Your task to perform on an android device: Clear all items from cart on target. Search for macbook pro 13 inch on target, select the first entry, add it to the cart, then select checkout. Image 0: 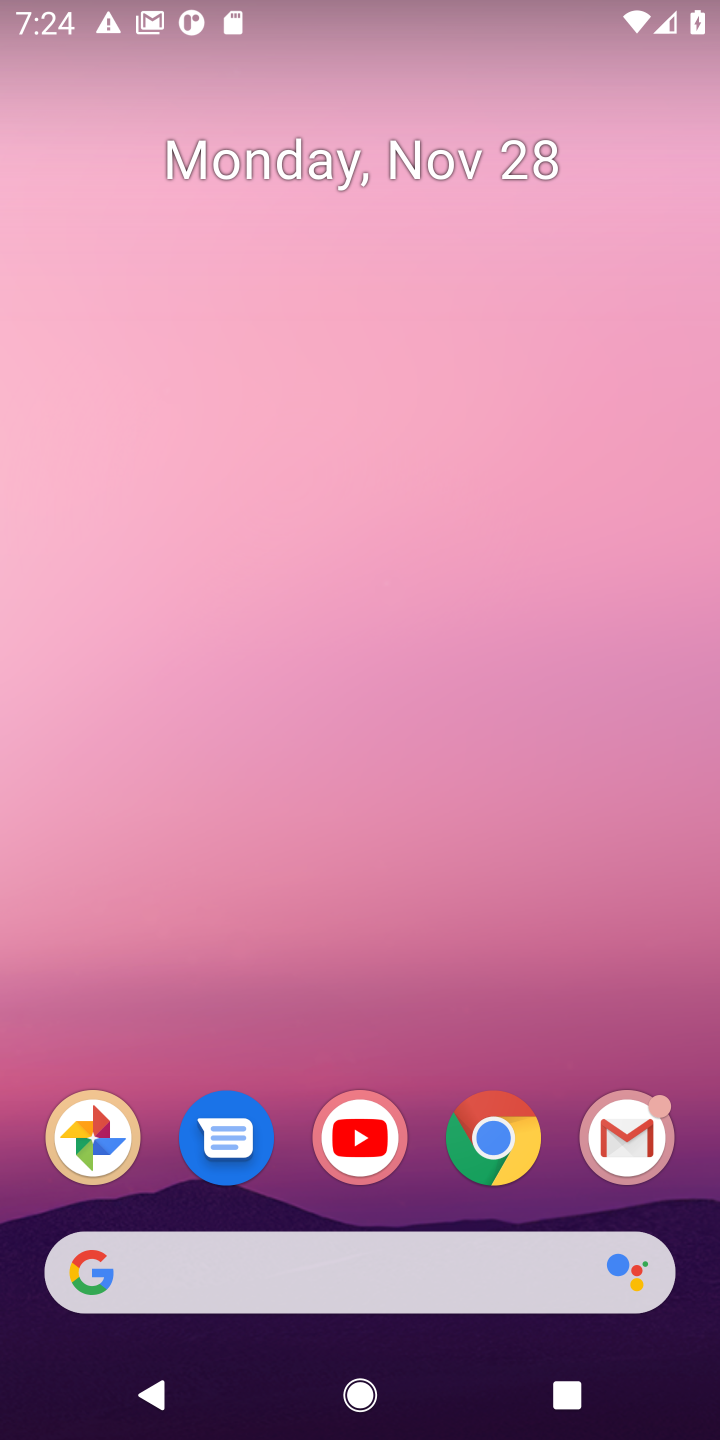
Step 0: click (489, 1138)
Your task to perform on an android device: Clear all items from cart on target. Search for macbook pro 13 inch on target, select the first entry, add it to the cart, then select checkout. Image 1: 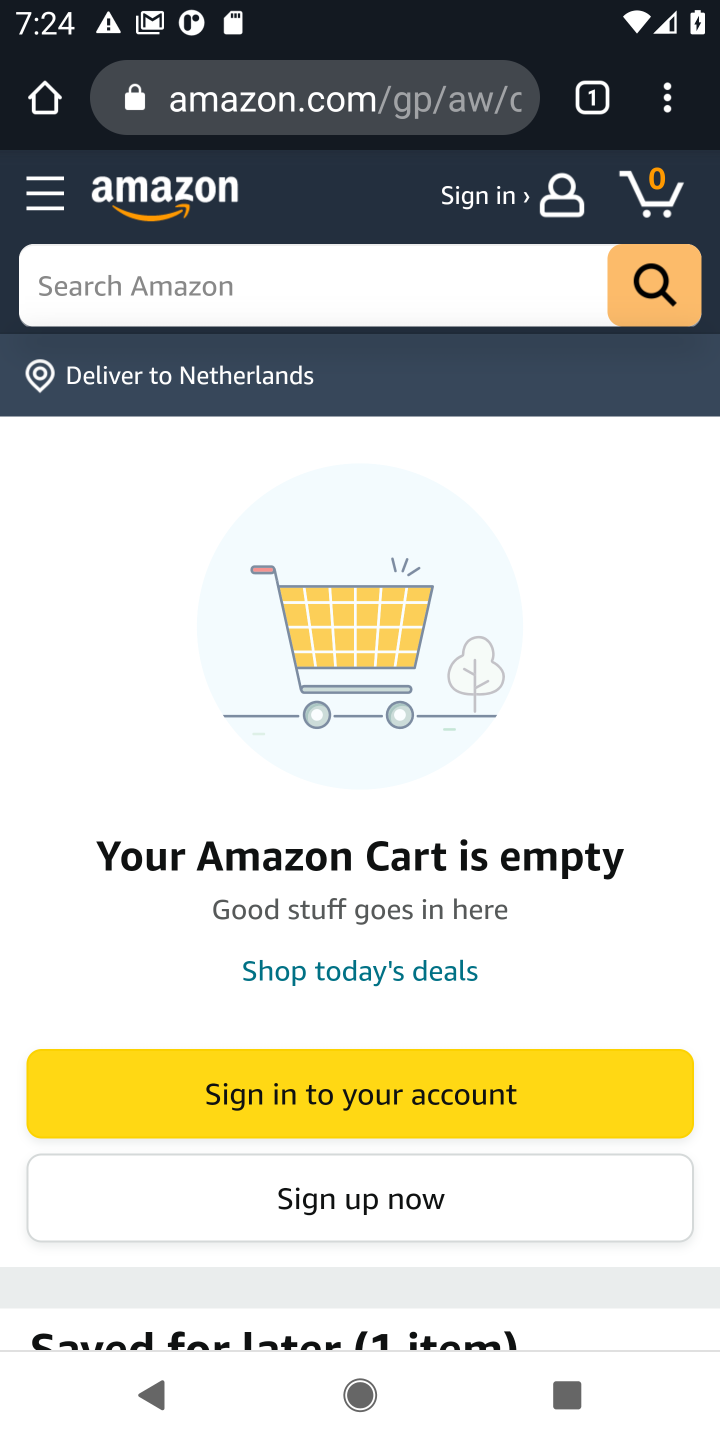
Step 1: click (323, 107)
Your task to perform on an android device: Clear all items from cart on target. Search for macbook pro 13 inch on target, select the first entry, add it to the cart, then select checkout. Image 2: 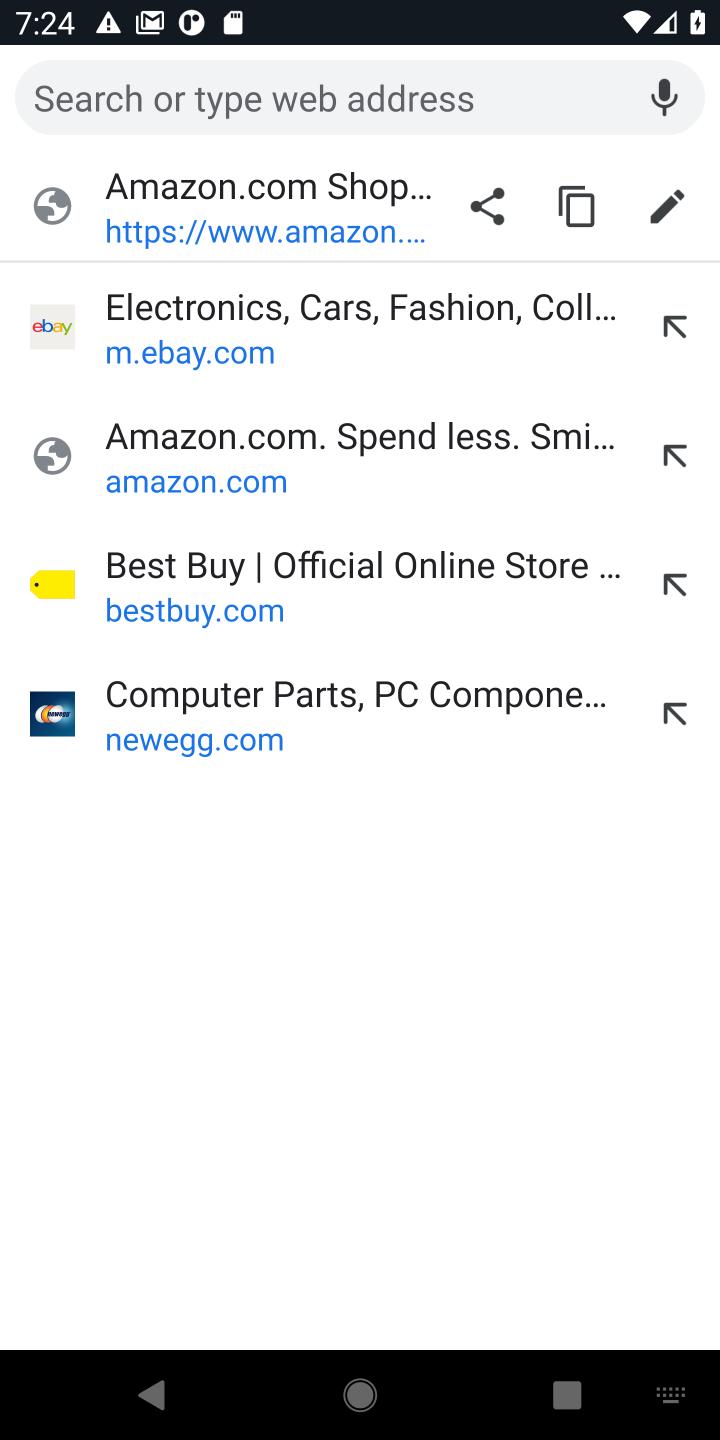
Step 2: type "target.com"
Your task to perform on an android device: Clear all items from cart on target. Search for macbook pro 13 inch on target, select the first entry, add it to the cart, then select checkout. Image 3: 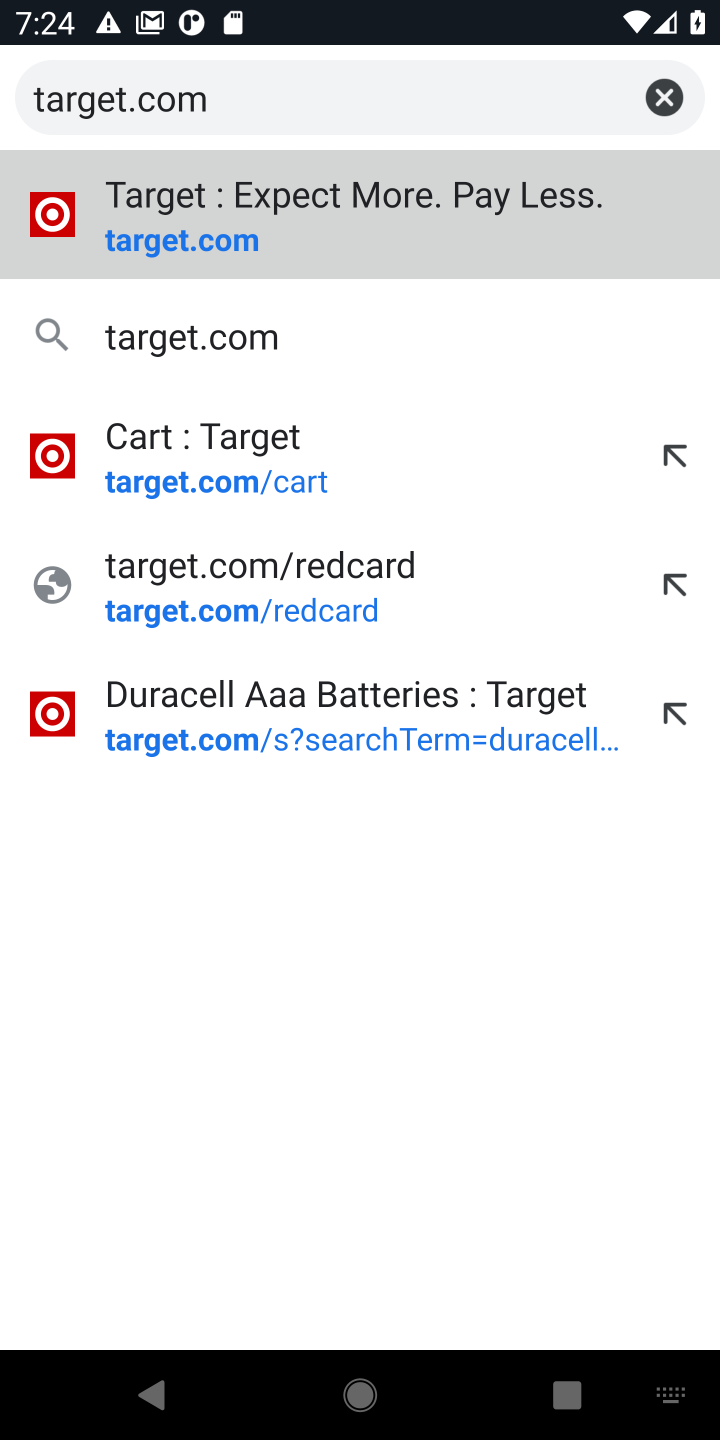
Step 3: click (168, 215)
Your task to perform on an android device: Clear all items from cart on target. Search for macbook pro 13 inch on target, select the first entry, add it to the cart, then select checkout. Image 4: 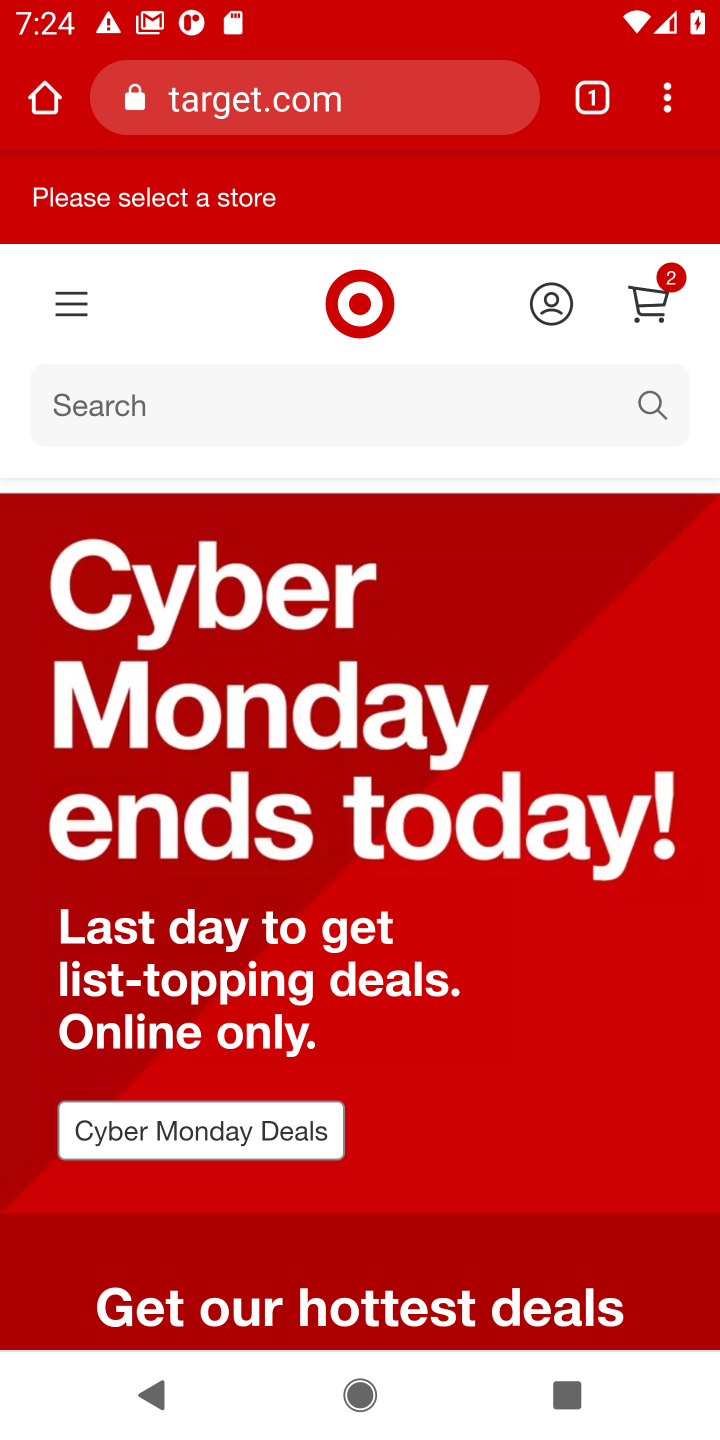
Step 4: click (653, 300)
Your task to perform on an android device: Clear all items from cart on target. Search for macbook pro 13 inch on target, select the first entry, add it to the cart, then select checkout. Image 5: 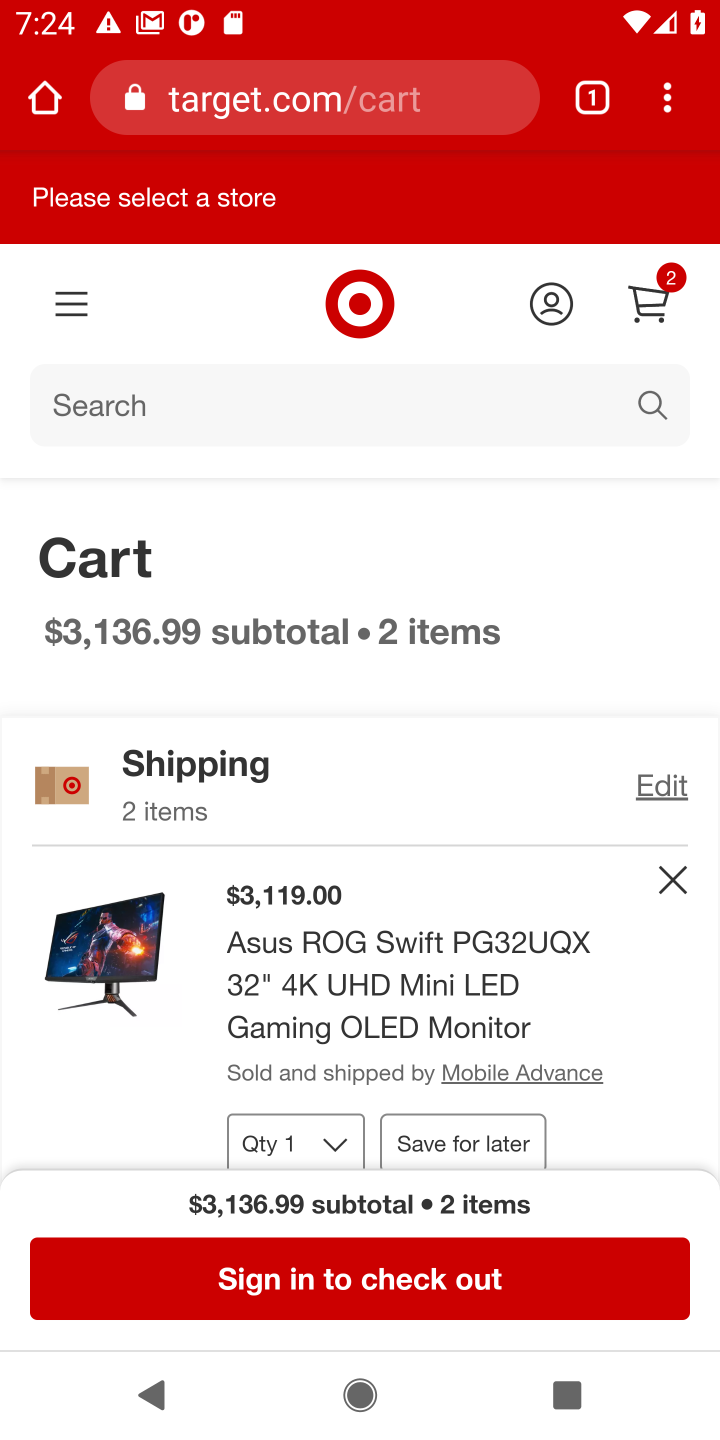
Step 5: click (673, 871)
Your task to perform on an android device: Clear all items from cart on target. Search for macbook pro 13 inch on target, select the first entry, add it to the cart, then select checkout. Image 6: 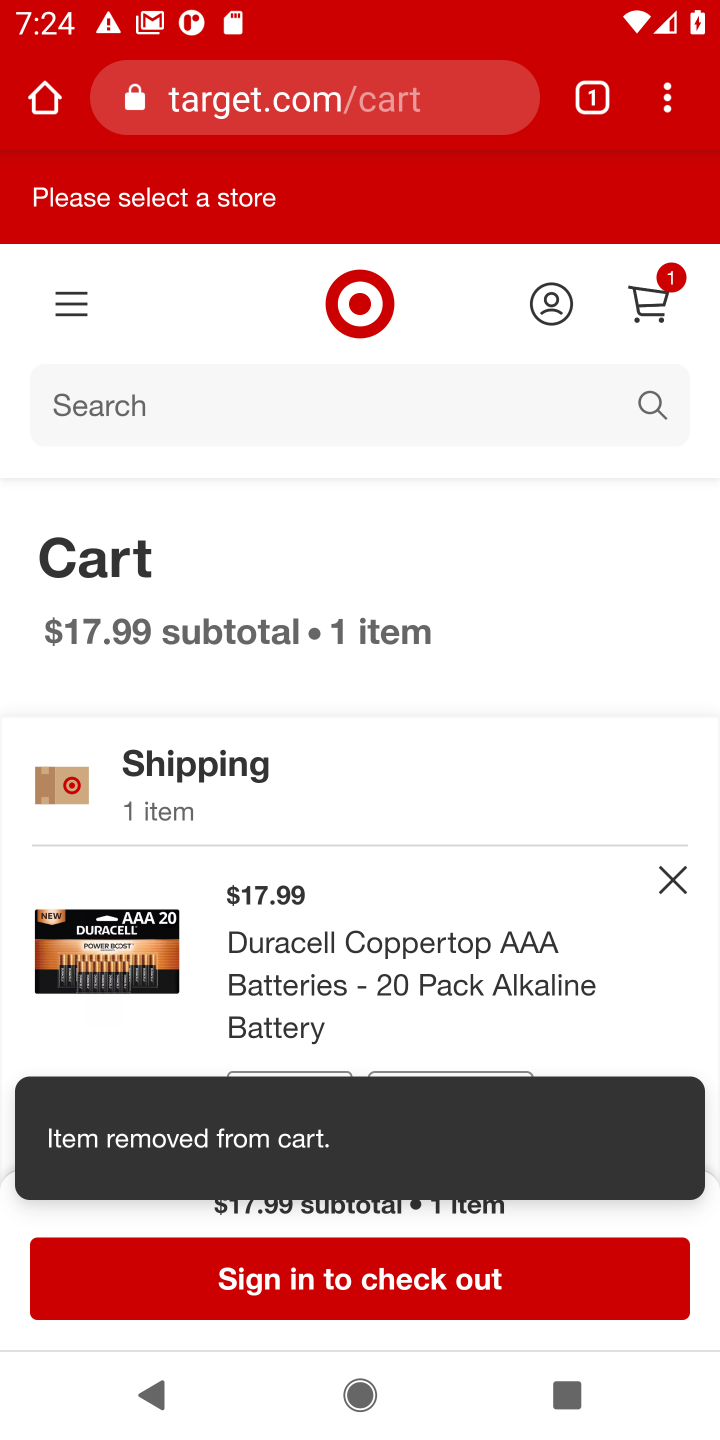
Step 6: click (669, 887)
Your task to perform on an android device: Clear all items from cart on target. Search for macbook pro 13 inch on target, select the first entry, add it to the cart, then select checkout. Image 7: 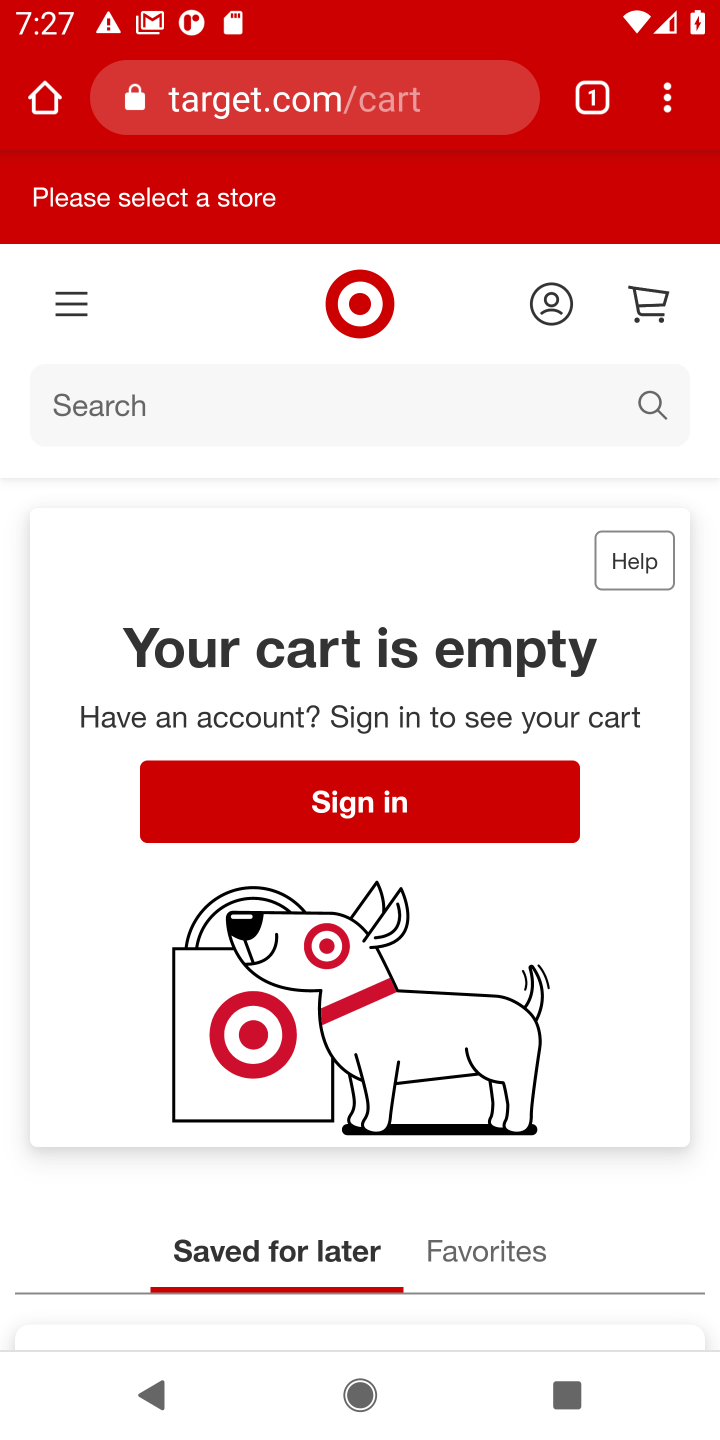
Step 7: click (150, 412)
Your task to perform on an android device: Clear all items from cart on target. Search for macbook pro 13 inch on target, select the first entry, add it to the cart, then select checkout. Image 8: 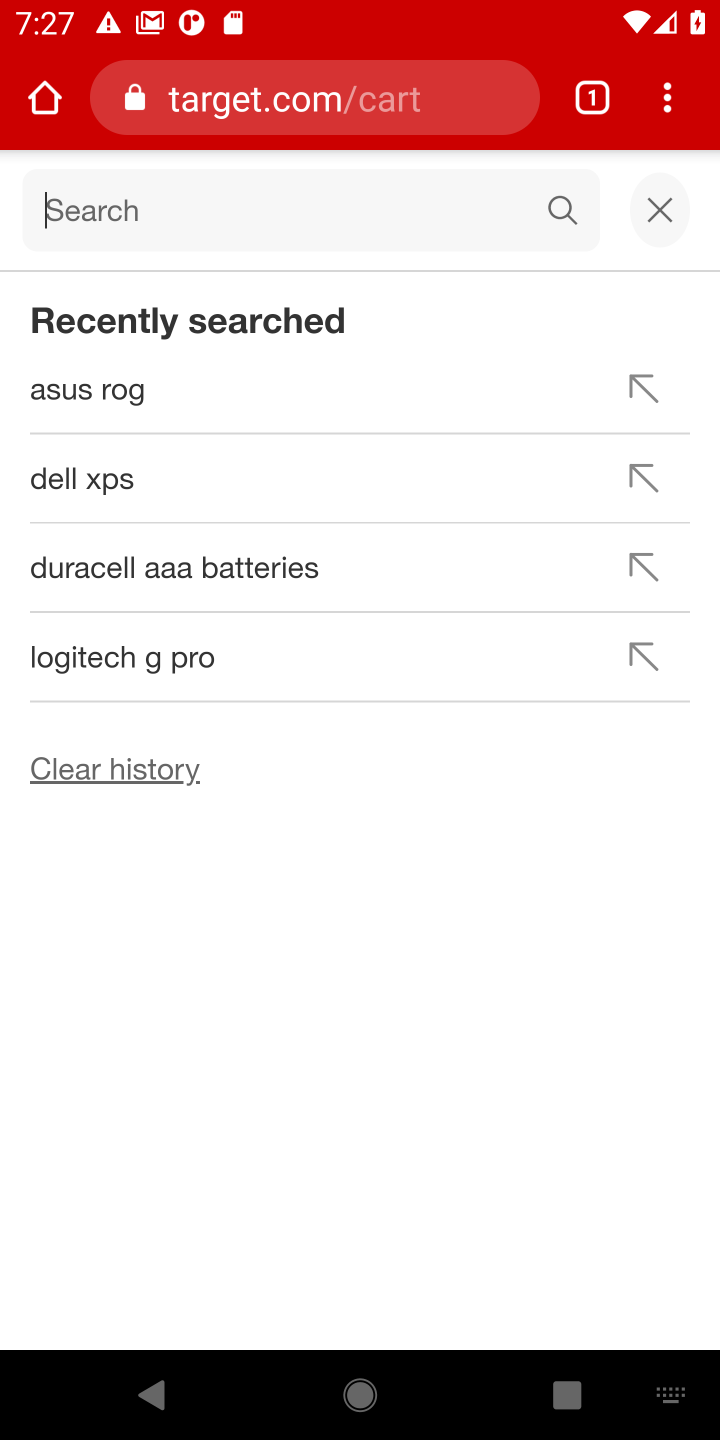
Step 8: type "macbook pro 13 inch"
Your task to perform on an android device: Clear all items from cart on target. Search for macbook pro 13 inch on target, select the first entry, add it to the cart, then select checkout. Image 9: 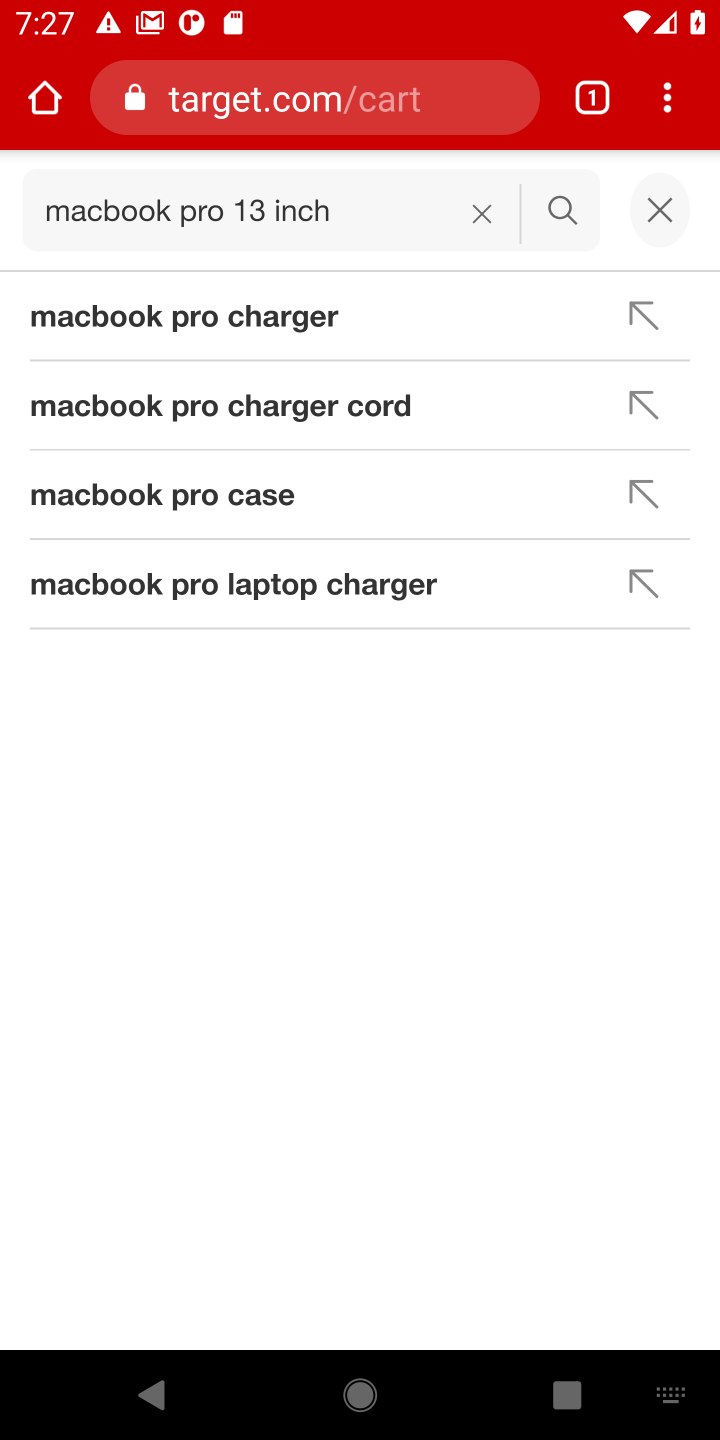
Step 9: click (561, 209)
Your task to perform on an android device: Clear all items from cart on target. Search for macbook pro 13 inch on target, select the first entry, add it to the cart, then select checkout. Image 10: 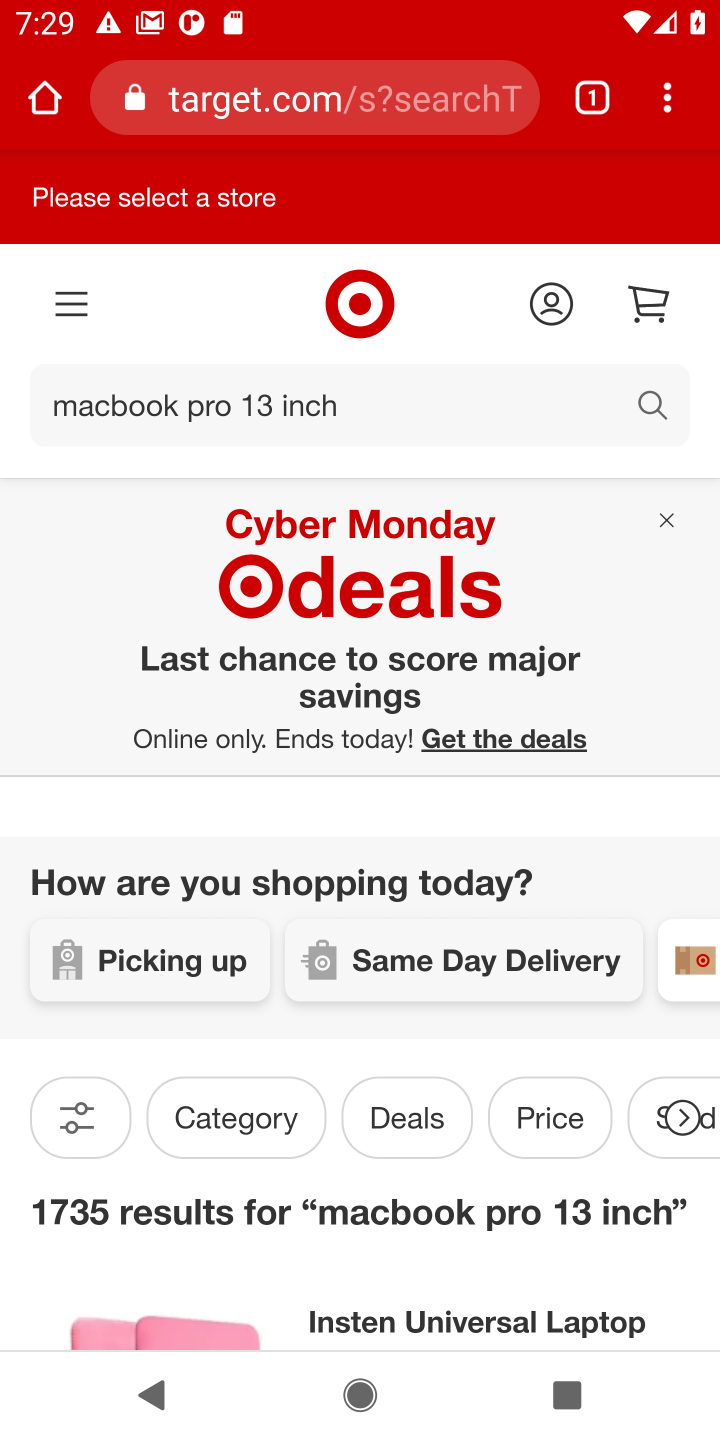
Step 10: drag from (303, 764) to (334, 256)
Your task to perform on an android device: Clear all items from cart on target. Search for macbook pro 13 inch on target, select the first entry, add it to the cart, then select checkout. Image 11: 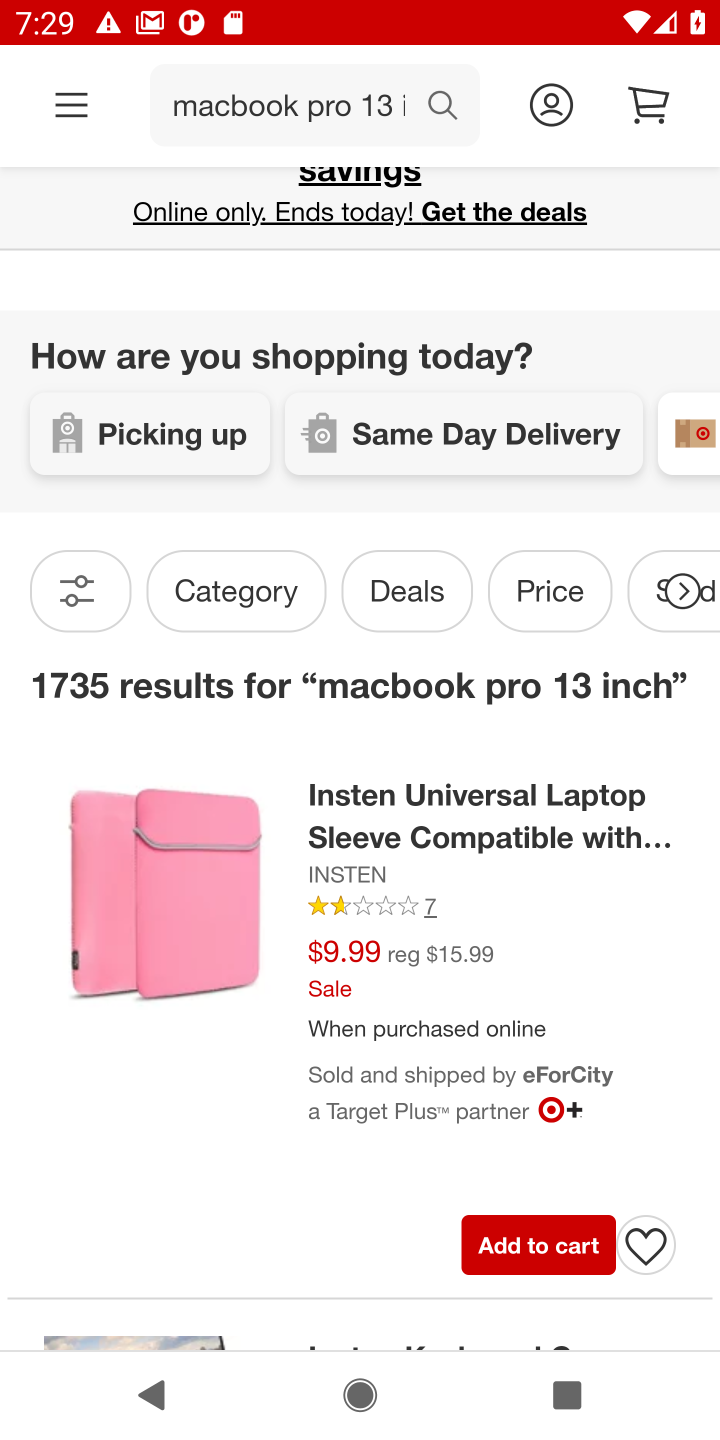
Step 11: drag from (264, 959) to (306, 521)
Your task to perform on an android device: Clear all items from cart on target. Search for macbook pro 13 inch on target, select the first entry, add it to the cart, then select checkout. Image 12: 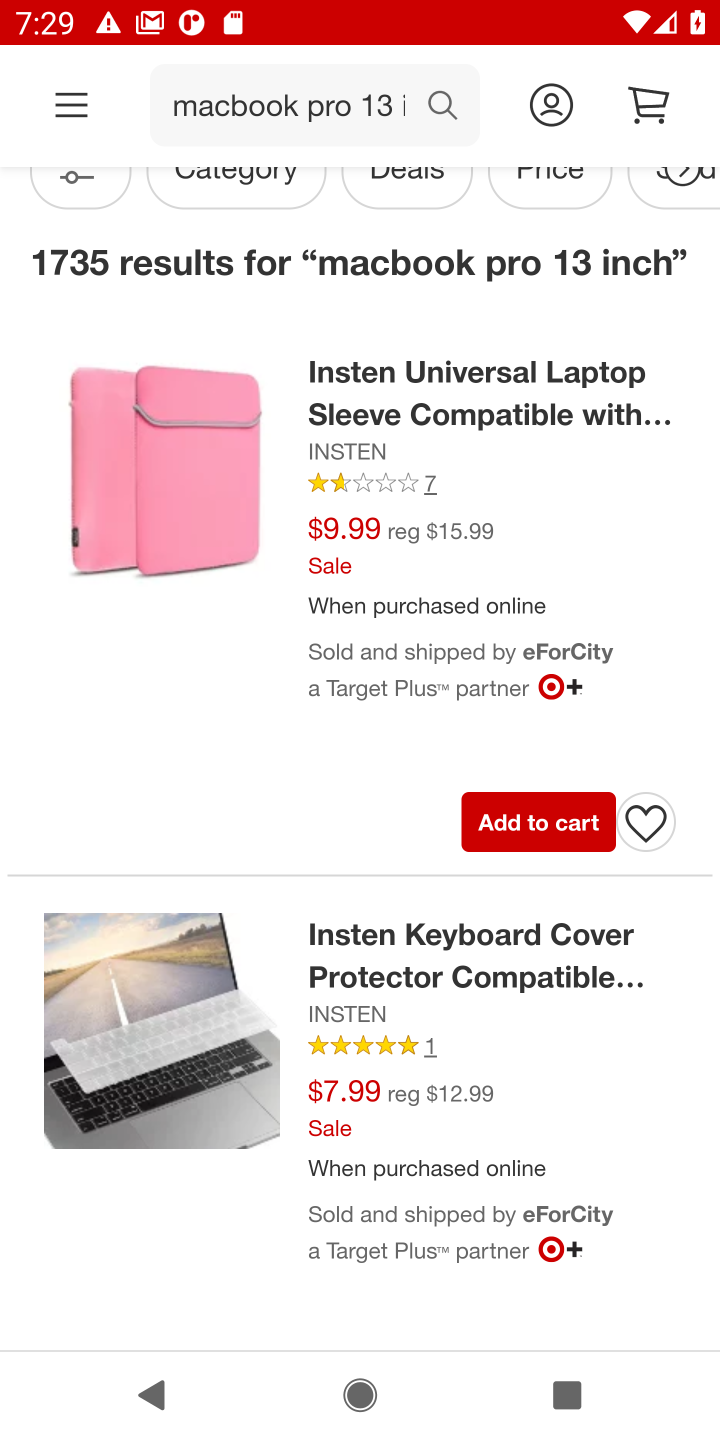
Step 12: click (489, 820)
Your task to perform on an android device: Clear all items from cart on target. Search for macbook pro 13 inch on target, select the first entry, add it to the cart, then select checkout. Image 13: 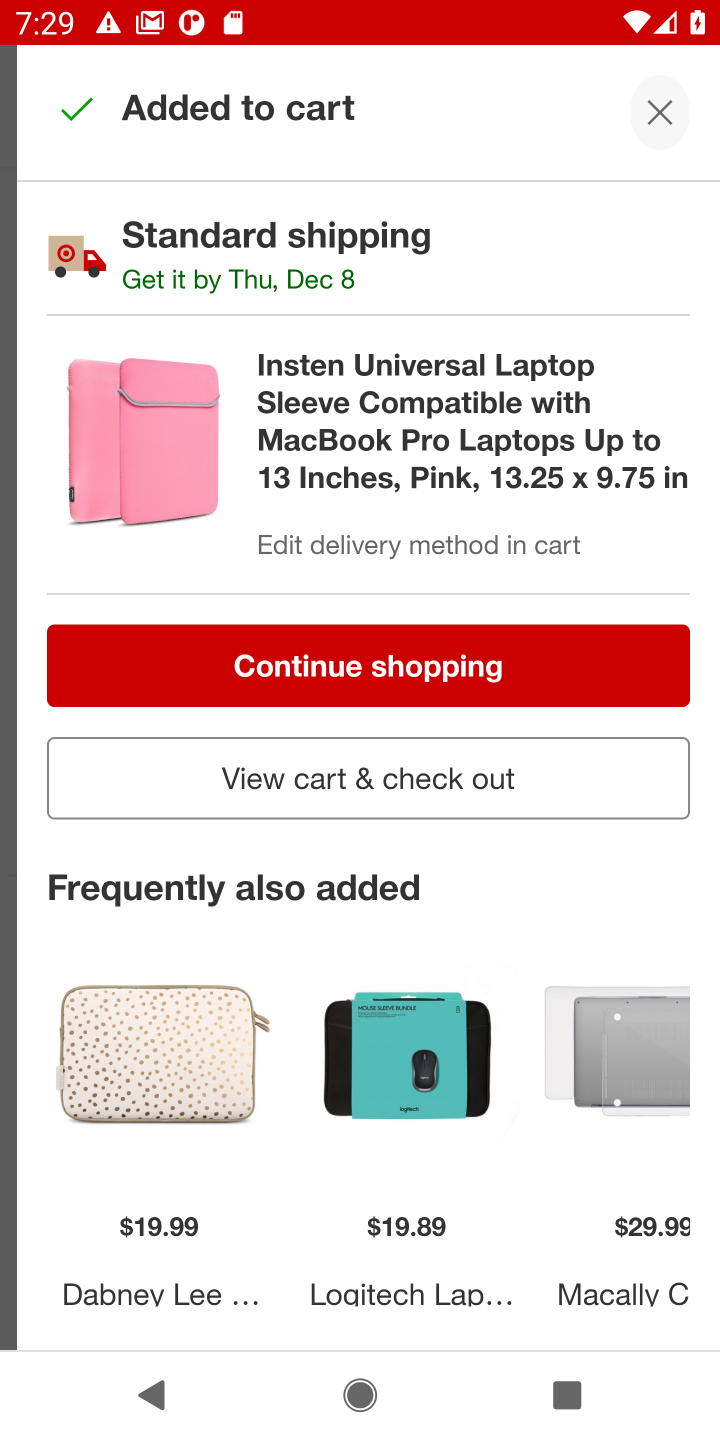
Step 13: click (426, 772)
Your task to perform on an android device: Clear all items from cart on target. Search for macbook pro 13 inch on target, select the first entry, add it to the cart, then select checkout. Image 14: 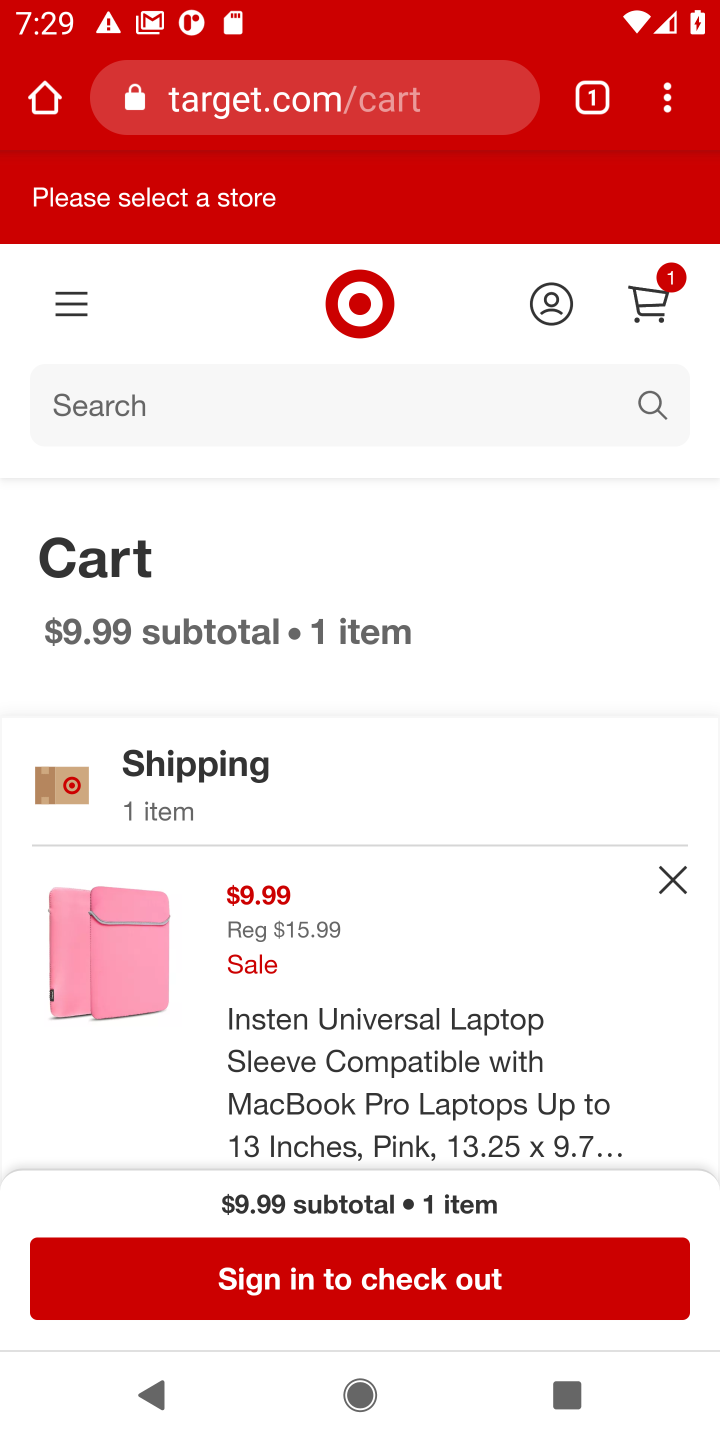
Step 14: task complete